Your task to perform on an android device: turn off notifications in google photos Image 0: 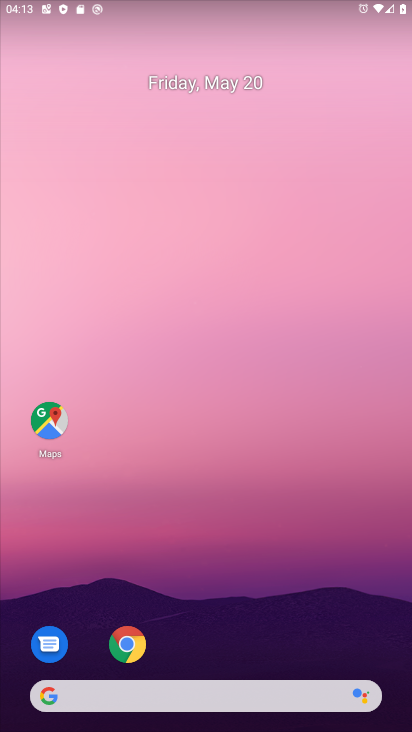
Step 0: drag from (309, 633) to (309, 125)
Your task to perform on an android device: turn off notifications in google photos Image 1: 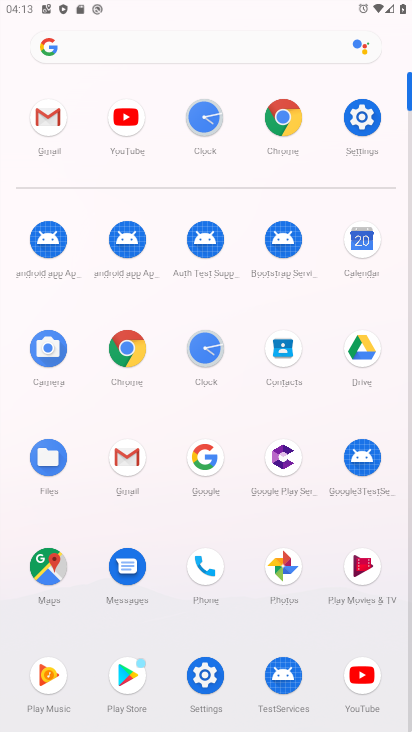
Step 1: click (295, 576)
Your task to perform on an android device: turn off notifications in google photos Image 2: 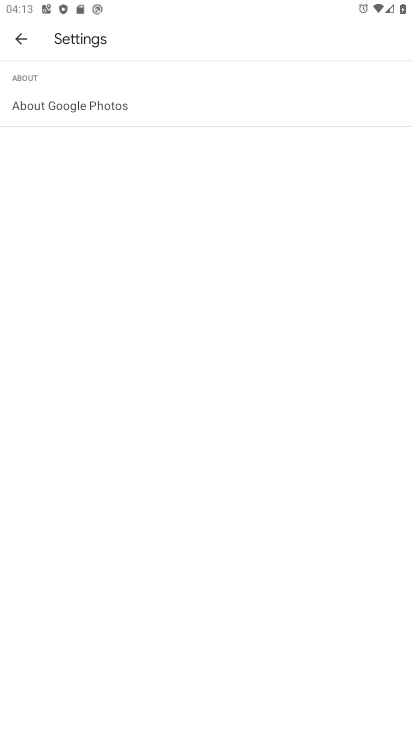
Step 2: click (18, 48)
Your task to perform on an android device: turn off notifications in google photos Image 3: 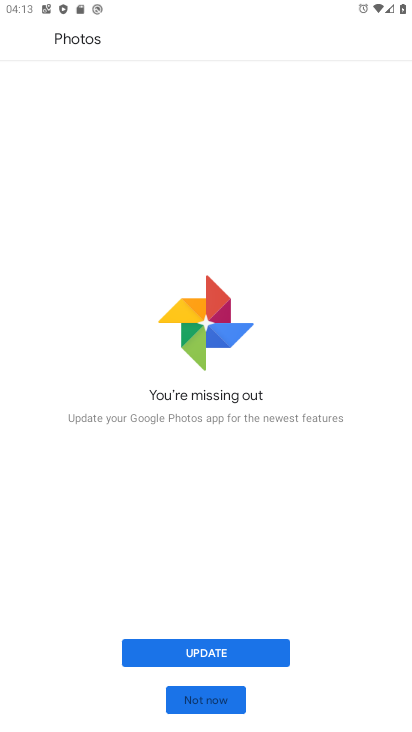
Step 3: click (212, 647)
Your task to perform on an android device: turn off notifications in google photos Image 4: 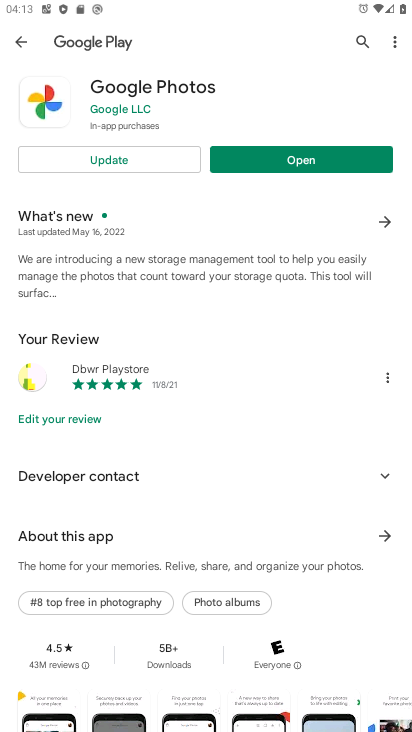
Step 4: click (144, 144)
Your task to perform on an android device: turn off notifications in google photos Image 5: 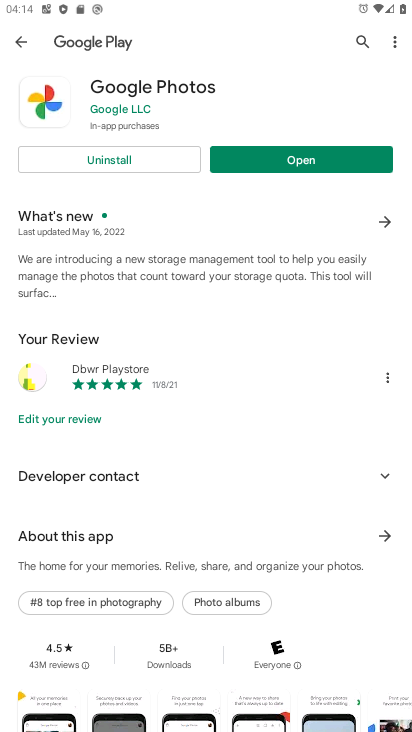
Step 5: click (288, 167)
Your task to perform on an android device: turn off notifications in google photos Image 6: 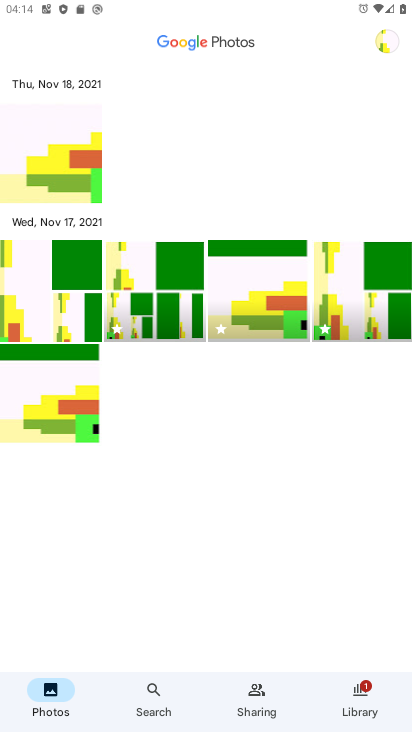
Step 6: click (388, 45)
Your task to perform on an android device: turn off notifications in google photos Image 7: 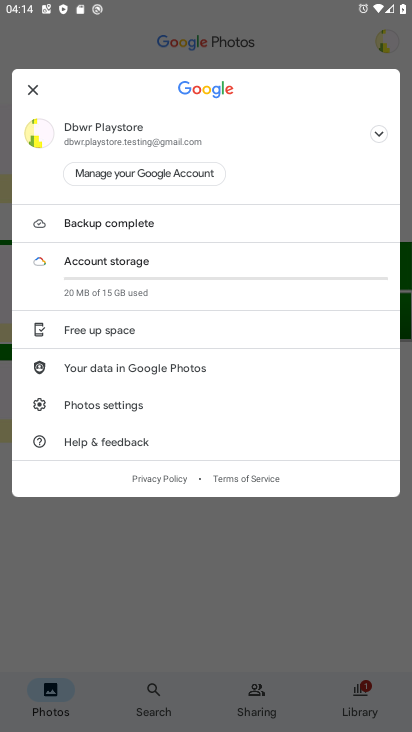
Step 7: click (170, 397)
Your task to perform on an android device: turn off notifications in google photos Image 8: 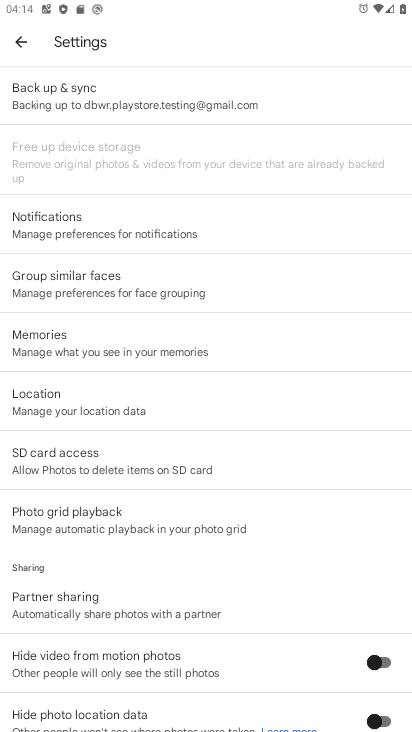
Step 8: click (193, 236)
Your task to perform on an android device: turn off notifications in google photos Image 9: 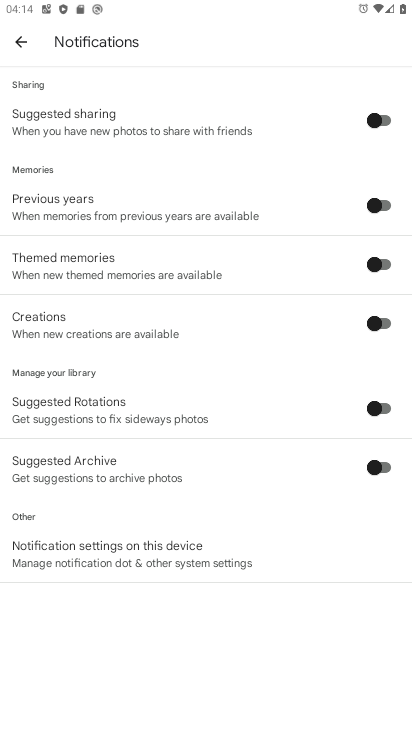
Step 9: click (315, 119)
Your task to perform on an android device: turn off notifications in google photos Image 10: 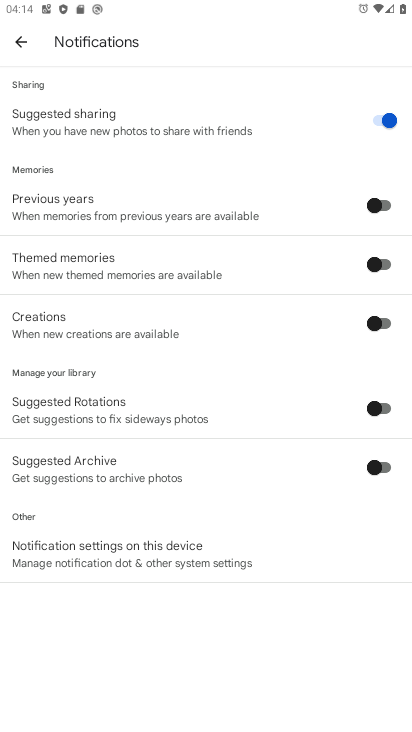
Step 10: task complete